Your task to perform on an android device: turn on showing notifications on the lock screen Image 0: 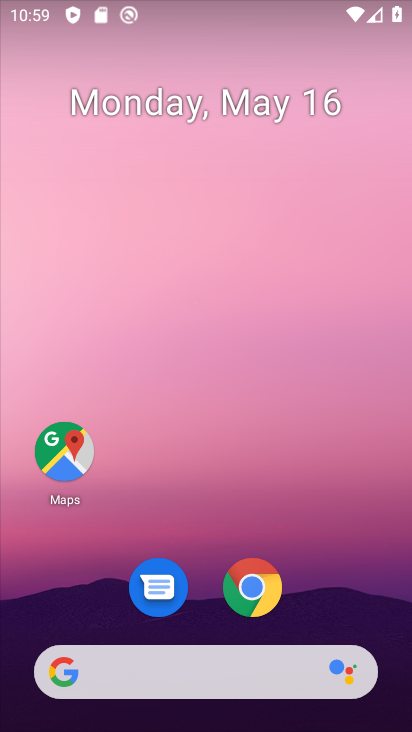
Step 0: drag from (395, 646) to (229, 25)
Your task to perform on an android device: turn on showing notifications on the lock screen Image 1: 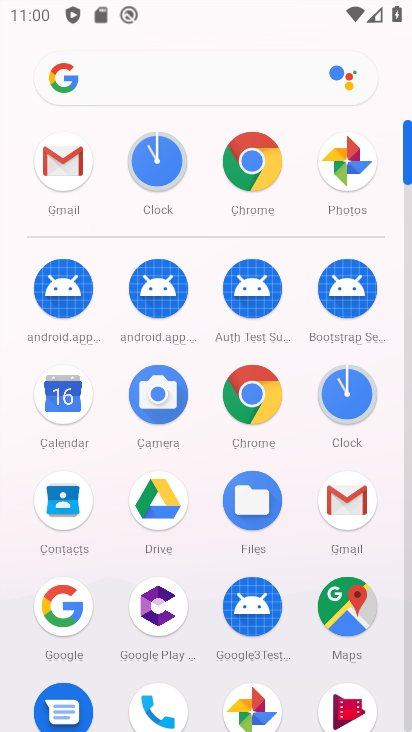
Step 1: drag from (217, 679) to (171, 144)
Your task to perform on an android device: turn on showing notifications on the lock screen Image 2: 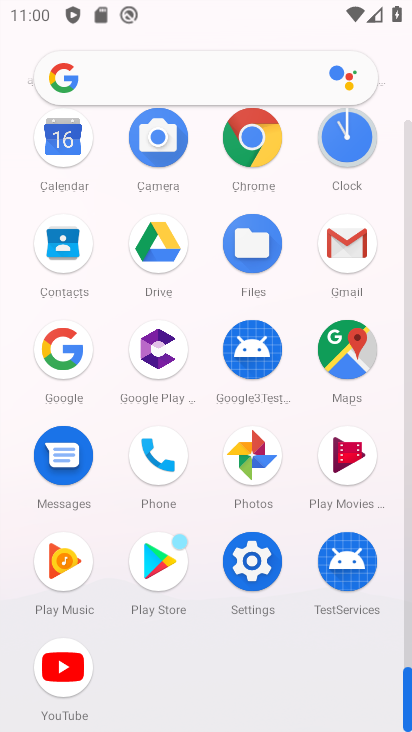
Step 2: click (257, 576)
Your task to perform on an android device: turn on showing notifications on the lock screen Image 3: 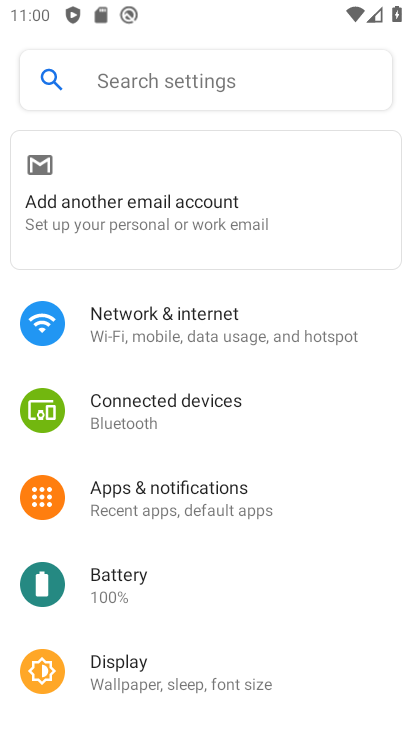
Step 3: click (196, 520)
Your task to perform on an android device: turn on showing notifications on the lock screen Image 4: 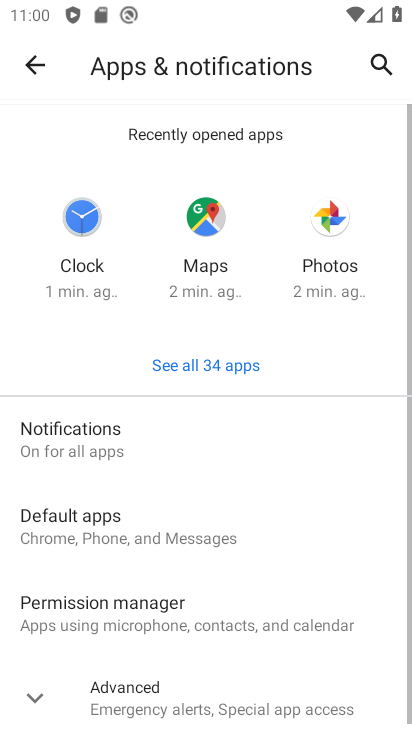
Step 4: click (104, 447)
Your task to perform on an android device: turn on showing notifications on the lock screen Image 5: 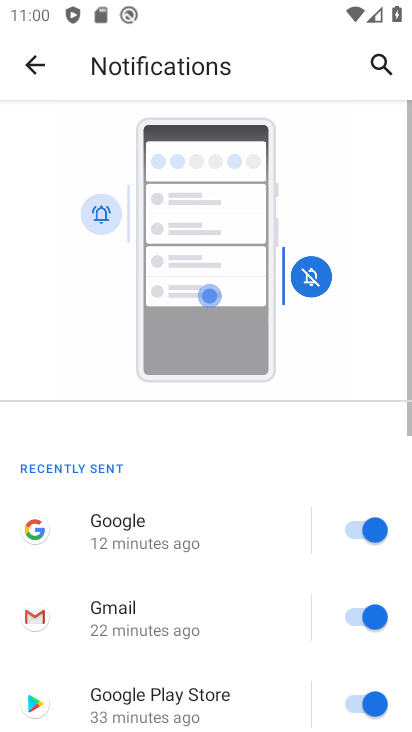
Step 5: drag from (161, 675) to (179, 181)
Your task to perform on an android device: turn on showing notifications on the lock screen Image 6: 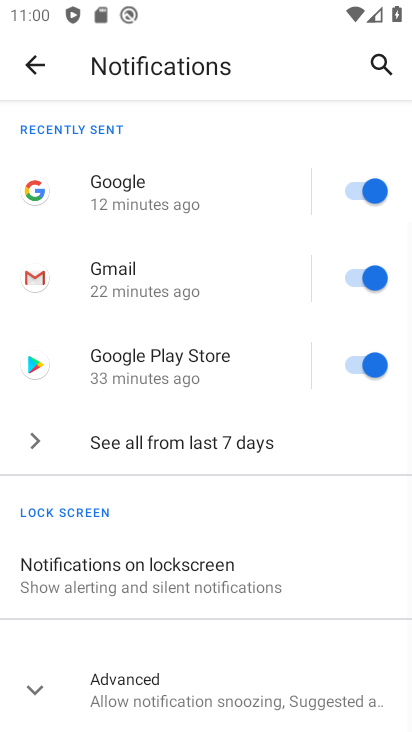
Step 6: click (196, 581)
Your task to perform on an android device: turn on showing notifications on the lock screen Image 7: 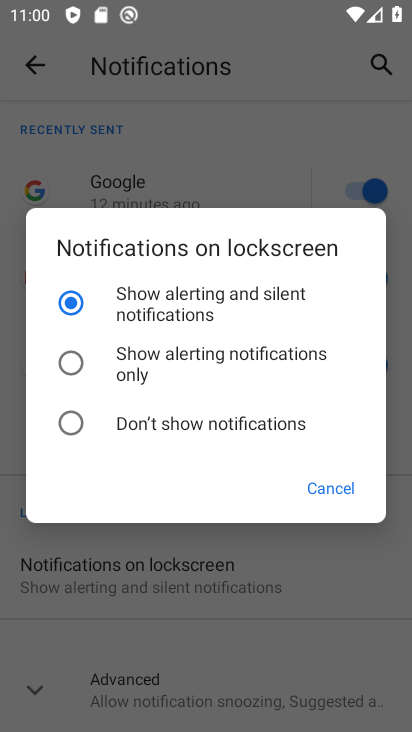
Step 7: task complete